Your task to perform on an android device: check out phone information Image 0: 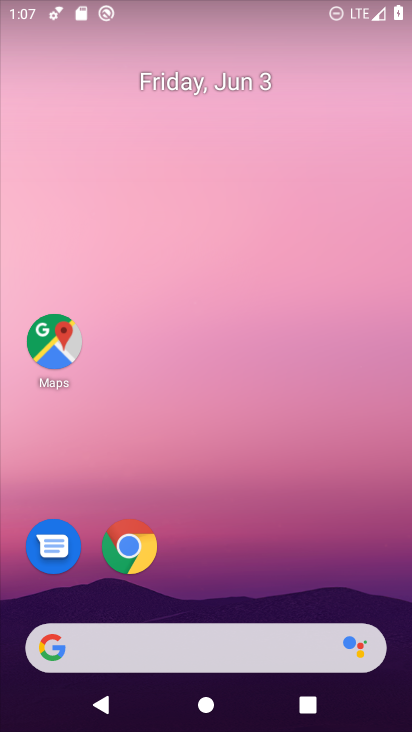
Step 0: drag from (249, 563) to (234, 164)
Your task to perform on an android device: check out phone information Image 1: 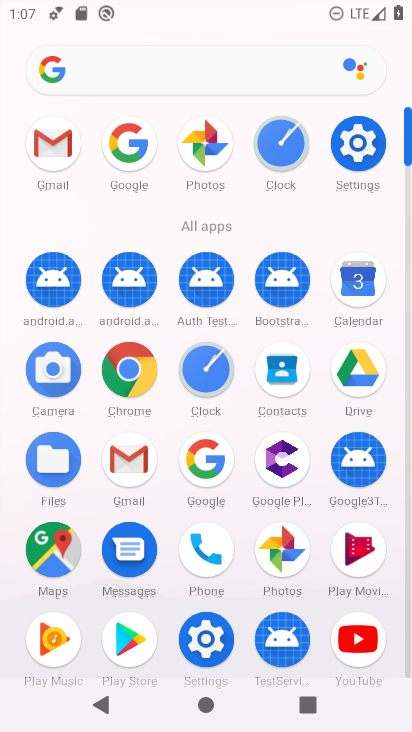
Step 1: click (357, 143)
Your task to perform on an android device: check out phone information Image 2: 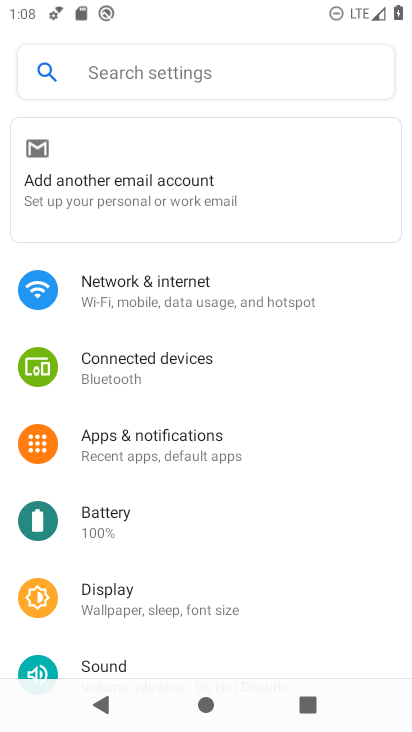
Step 2: drag from (162, 518) to (239, 424)
Your task to perform on an android device: check out phone information Image 3: 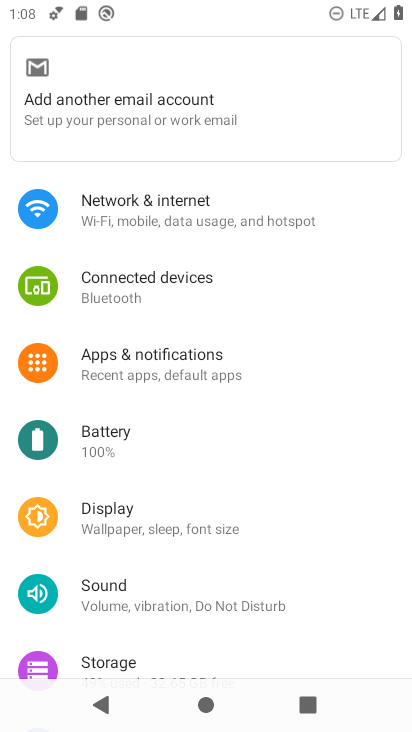
Step 3: drag from (157, 578) to (238, 479)
Your task to perform on an android device: check out phone information Image 4: 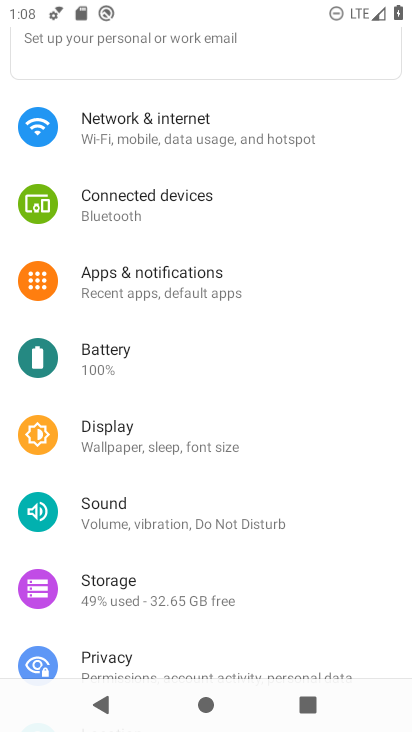
Step 4: drag from (179, 563) to (250, 468)
Your task to perform on an android device: check out phone information Image 5: 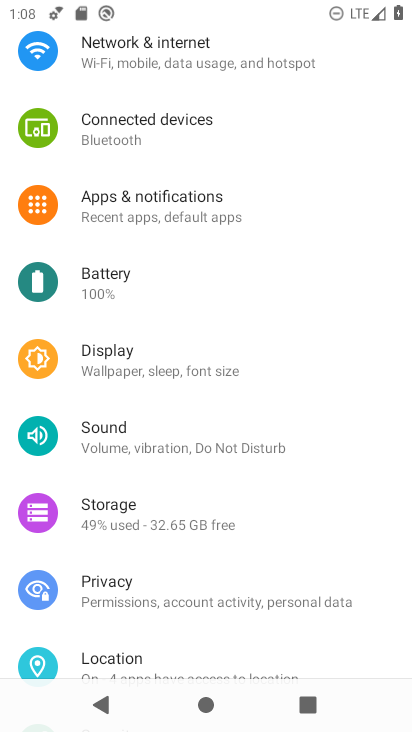
Step 5: drag from (175, 566) to (257, 473)
Your task to perform on an android device: check out phone information Image 6: 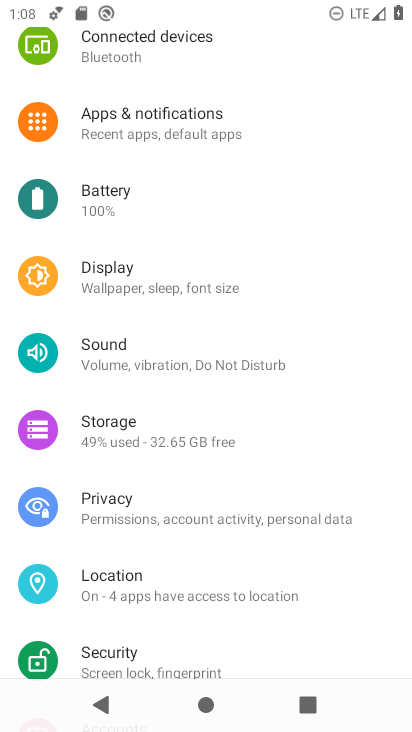
Step 6: drag from (164, 556) to (244, 460)
Your task to perform on an android device: check out phone information Image 7: 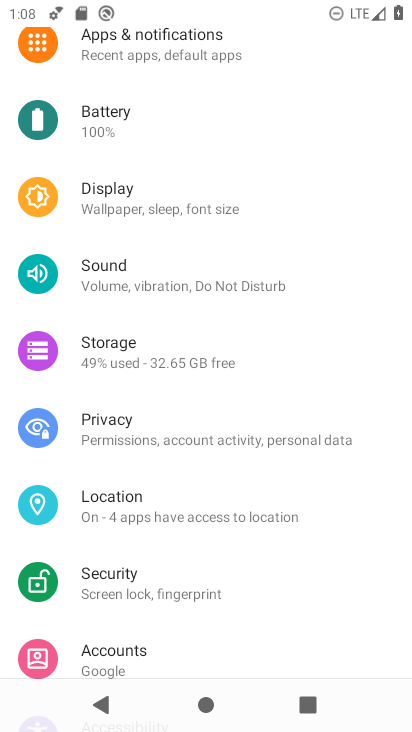
Step 7: drag from (172, 557) to (236, 471)
Your task to perform on an android device: check out phone information Image 8: 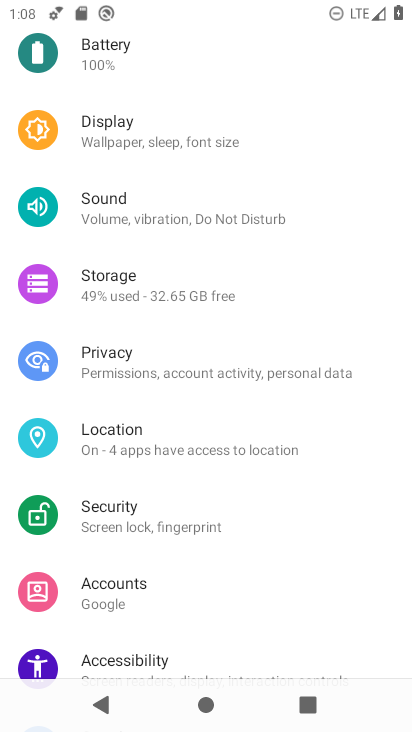
Step 8: drag from (159, 561) to (221, 479)
Your task to perform on an android device: check out phone information Image 9: 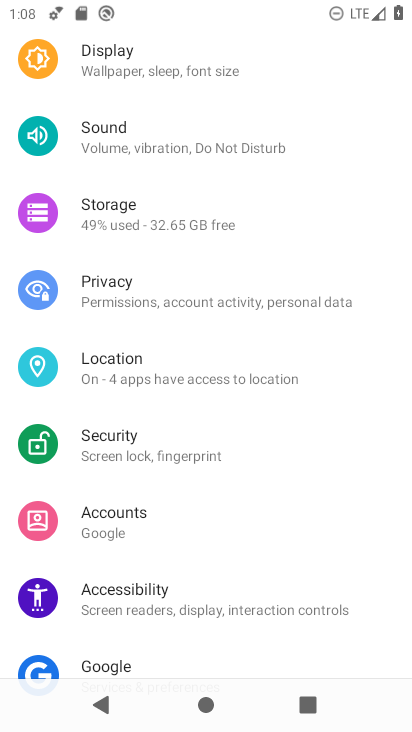
Step 9: drag from (153, 547) to (198, 476)
Your task to perform on an android device: check out phone information Image 10: 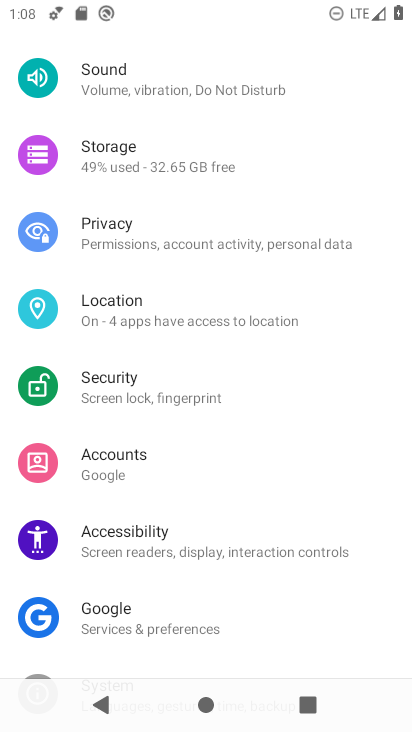
Step 10: drag from (147, 546) to (173, 473)
Your task to perform on an android device: check out phone information Image 11: 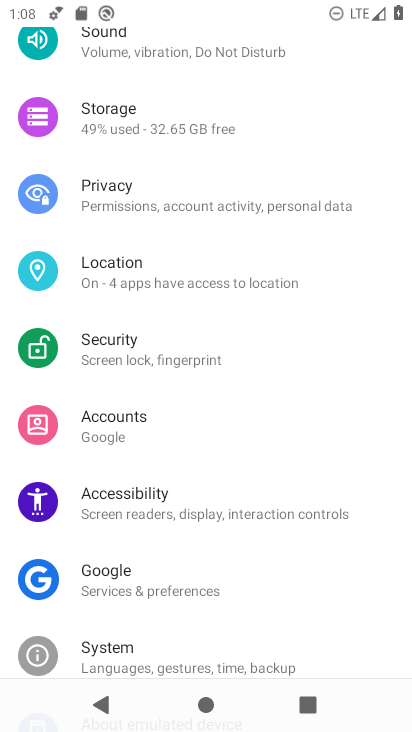
Step 11: drag from (168, 502) to (205, 443)
Your task to perform on an android device: check out phone information Image 12: 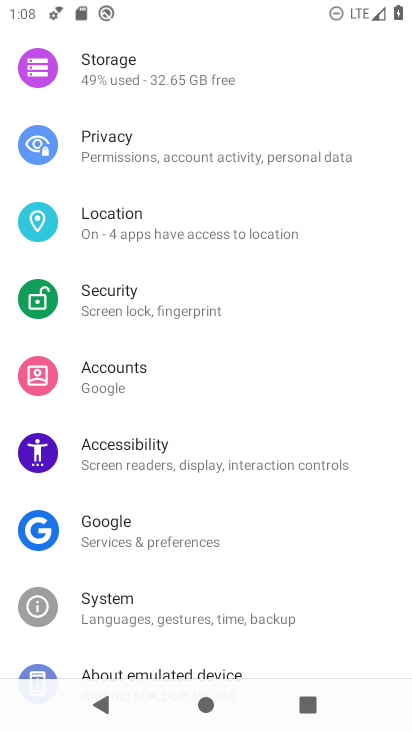
Step 12: drag from (174, 418) to (220, 302)
Your task to perform on an android device: check out phone information Image 13: 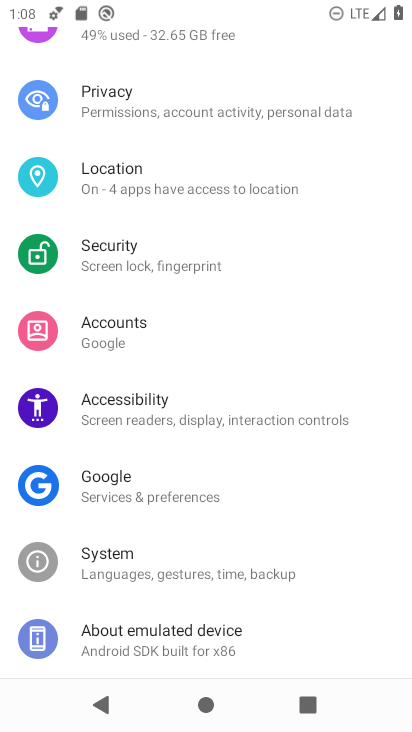
Step 13: click (165, 620)
Your task to perform on an android device: check out phone information Image 14: 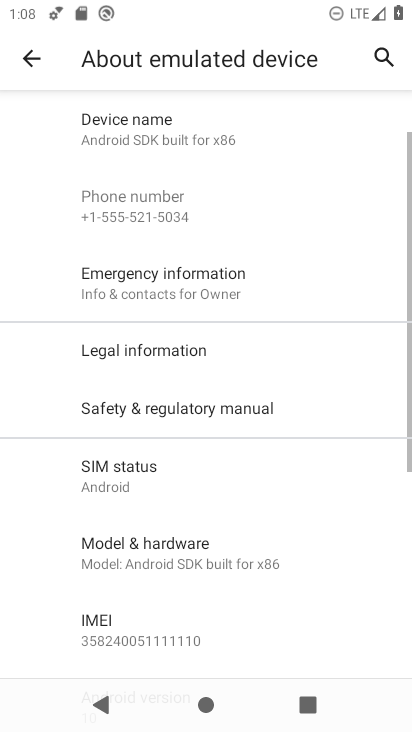
Step 14: task complete